Your task to perform on an android device: Search for Italian restaurants on Maps Image 0: 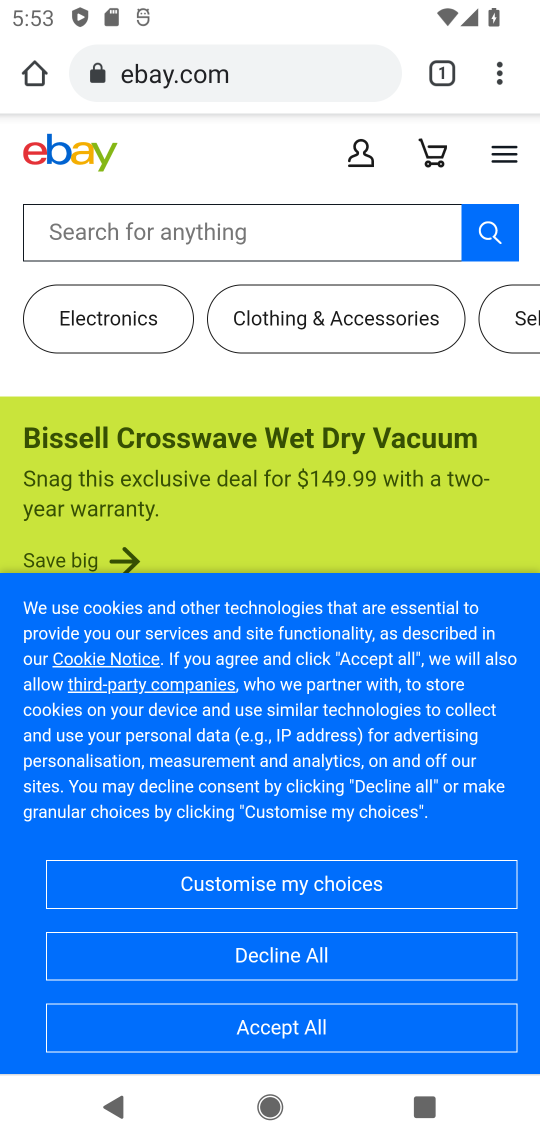
Step 0: press home button
Your task to perform on an android device: Search for Italian restaurants on Maps Image 1: 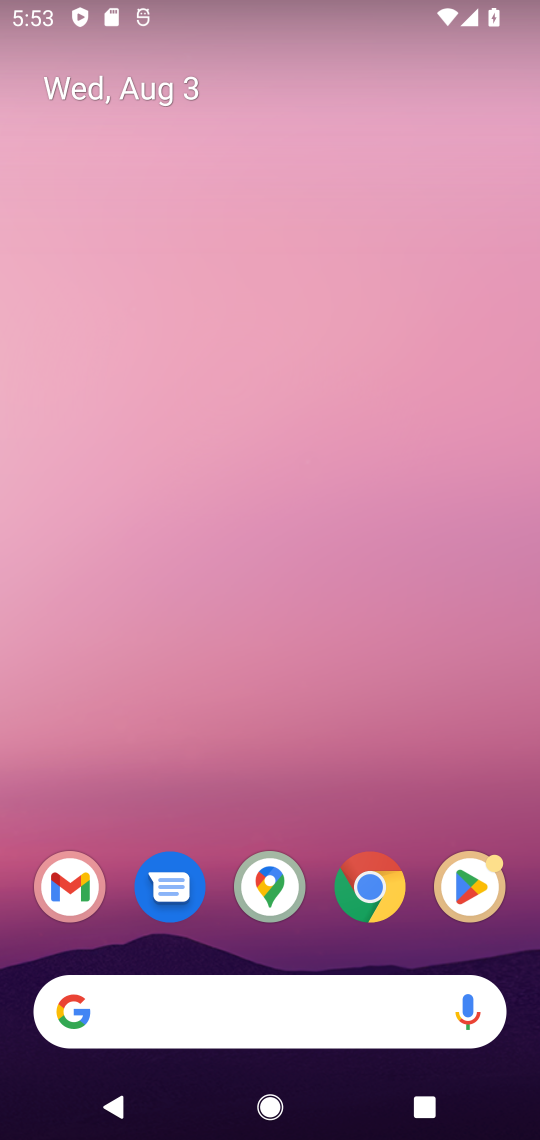
Step 1: click (278, 893)
Your task to perform on an android device: Search for Italian restaurants on Maps Image 2: 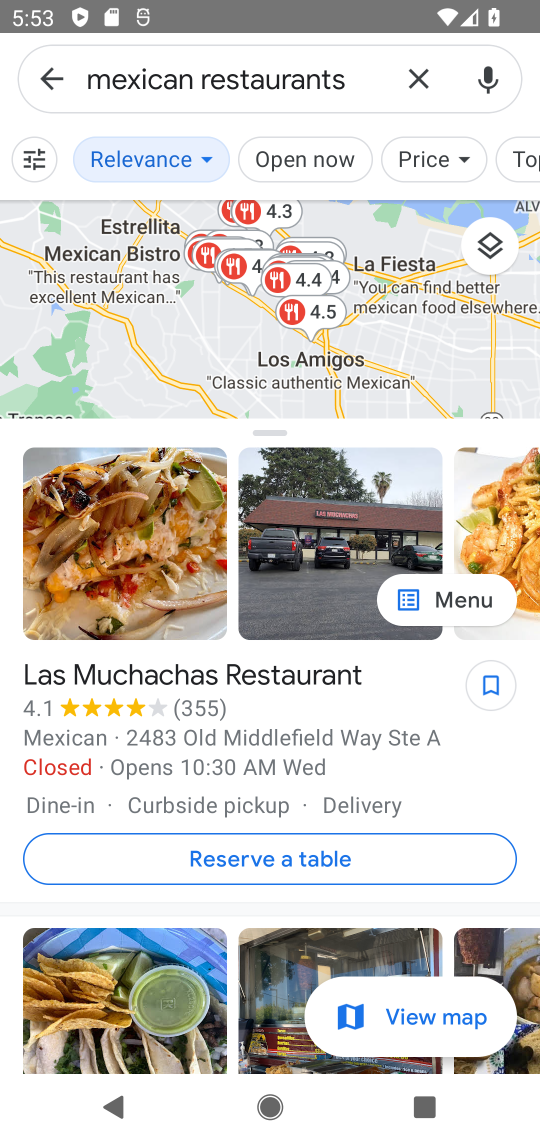
Step 2: click (58, 85)
Your task to perform on an android device: Search for Italian restaurants on Maps Image 3: 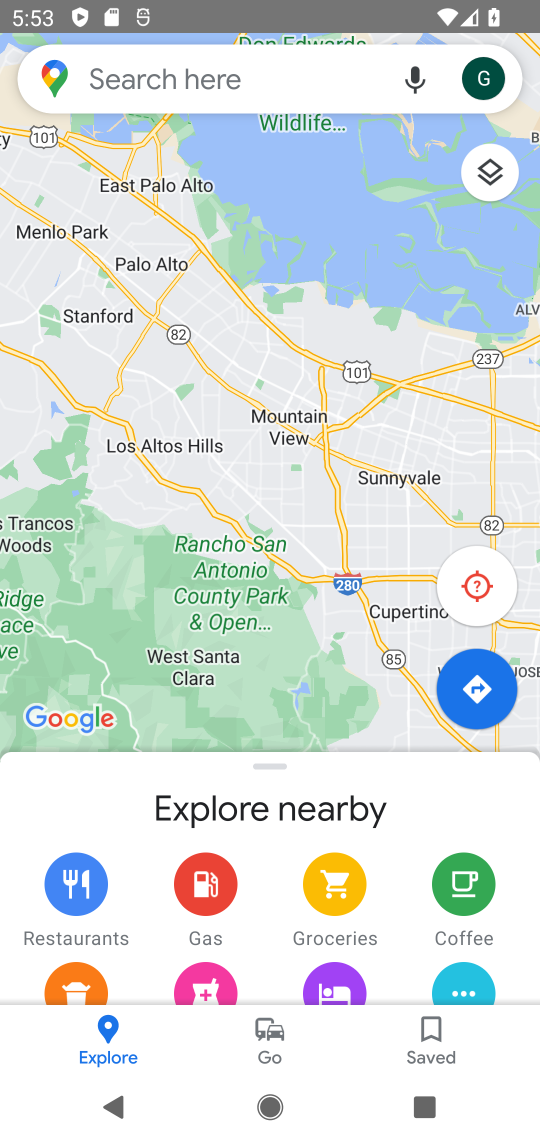
Step 3: click (294, 77)
Your task to perform on an android device: Search for Italian restaurants on Maps Image 4: 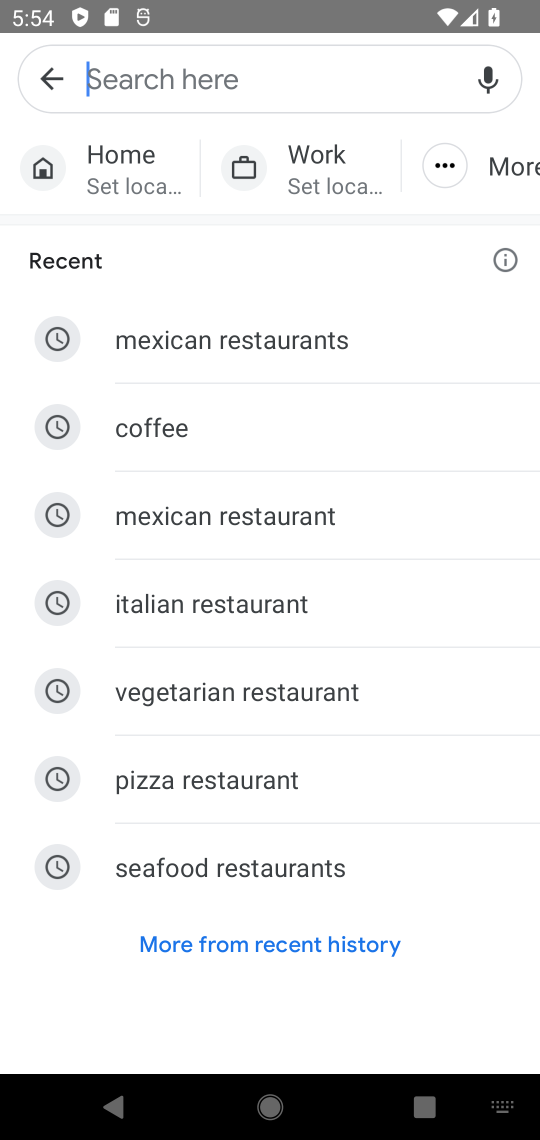
Step 4: click (235, 597)
Your task to perform on an android device: Search for Italian restaurants on Maps Image 5: 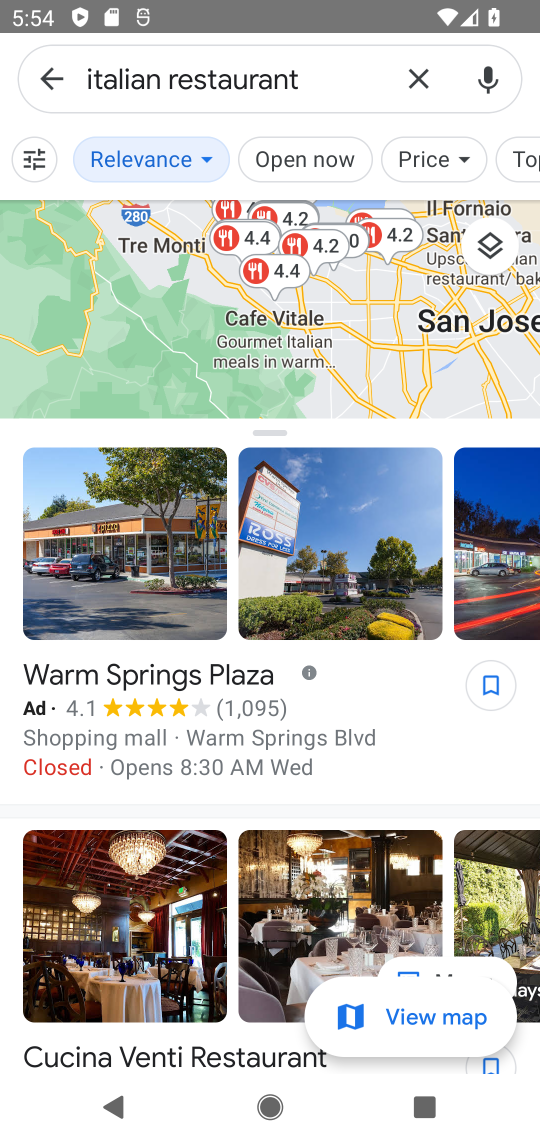
Step 5: task complete